Your task to perform on an android device: turn on data saver in the chrome app Image 0: 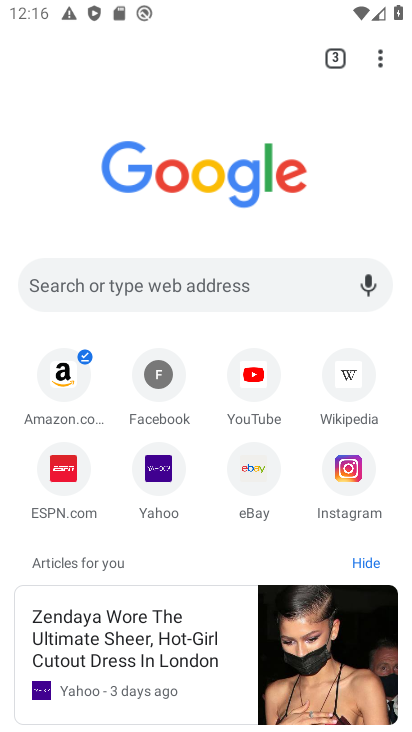
Step 0: click (376, 63)
Your task to perform on an android device: turn on data saver in the chrome app Image 1: 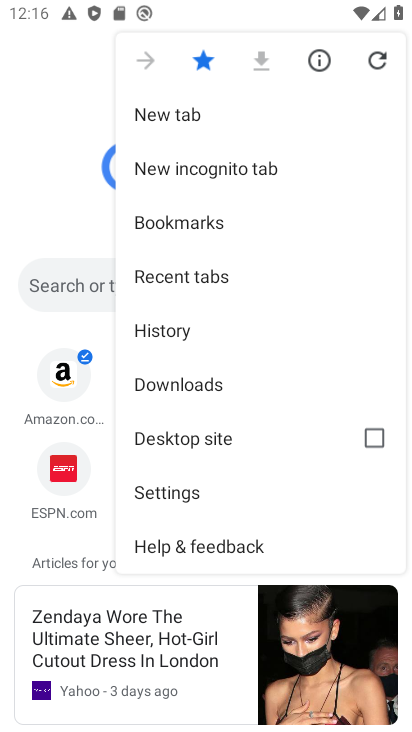
Step 1: click (206, 504)
Your task to perform on an android device: turn on data saver in the chrome app Image 2: 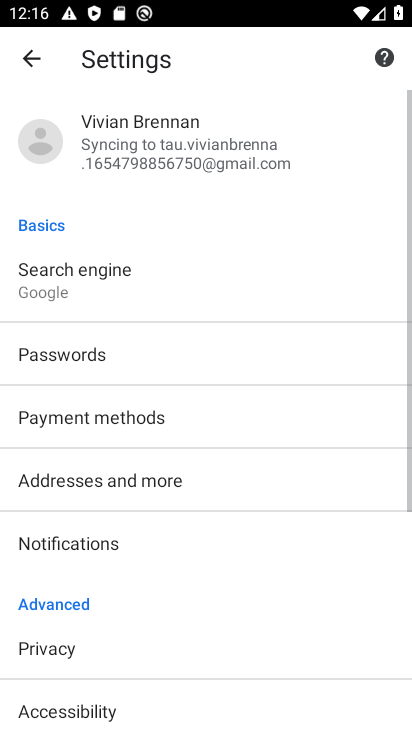
Step 2: drag from (192, 618) to (187, 242)
Your task to perform on an android device: turn on data saver in the chrome app Image 3: 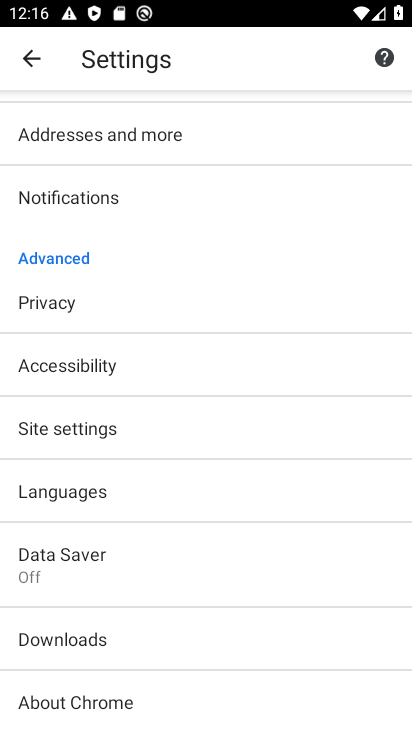
Step 3: click (146, 574)
Your task to perform on an android device: turn on data saver in the chrome app Image 4: 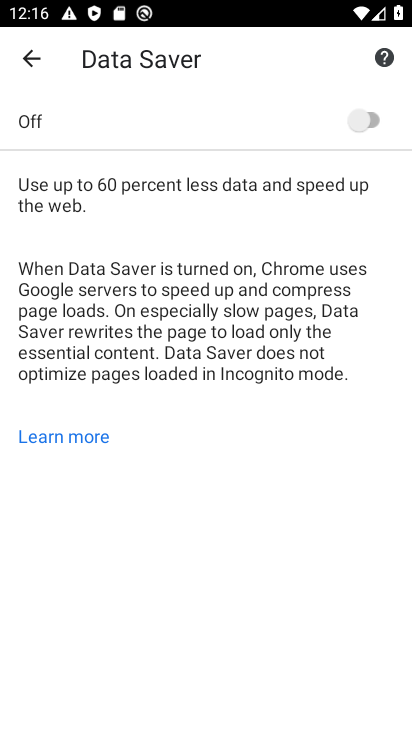
Step 4: click (371, 118)
Your task to perform on an android device: turn on data saver in the chrome app Image 5: 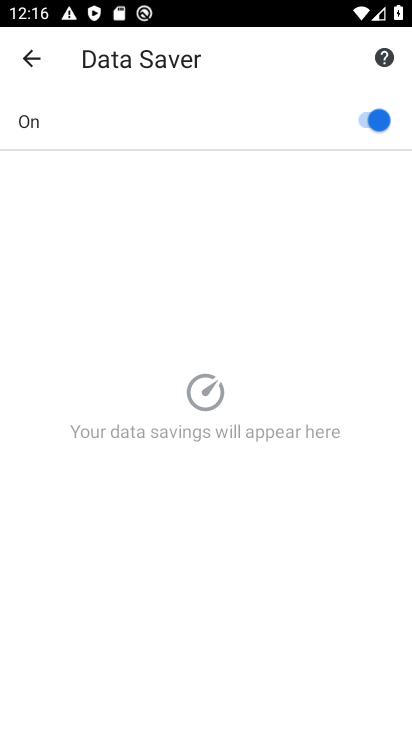
Step 5: task complete